Your task to perform on an android device: uninstall "Roku - Official Remote Control" Image 0: 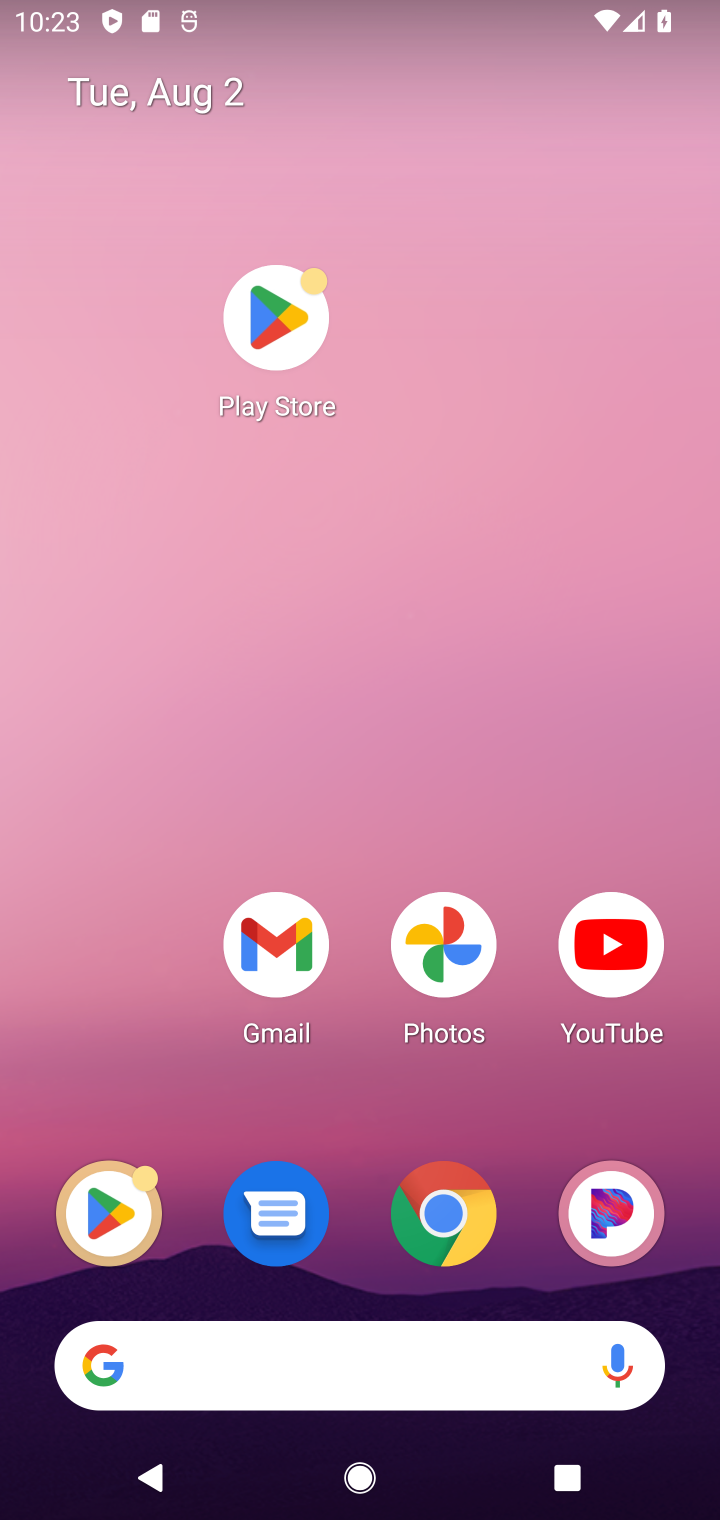
Step 0: click (292, 291)
Your task to perform on an android device: uninstall "Roku - Official Remote Control" Image 1: 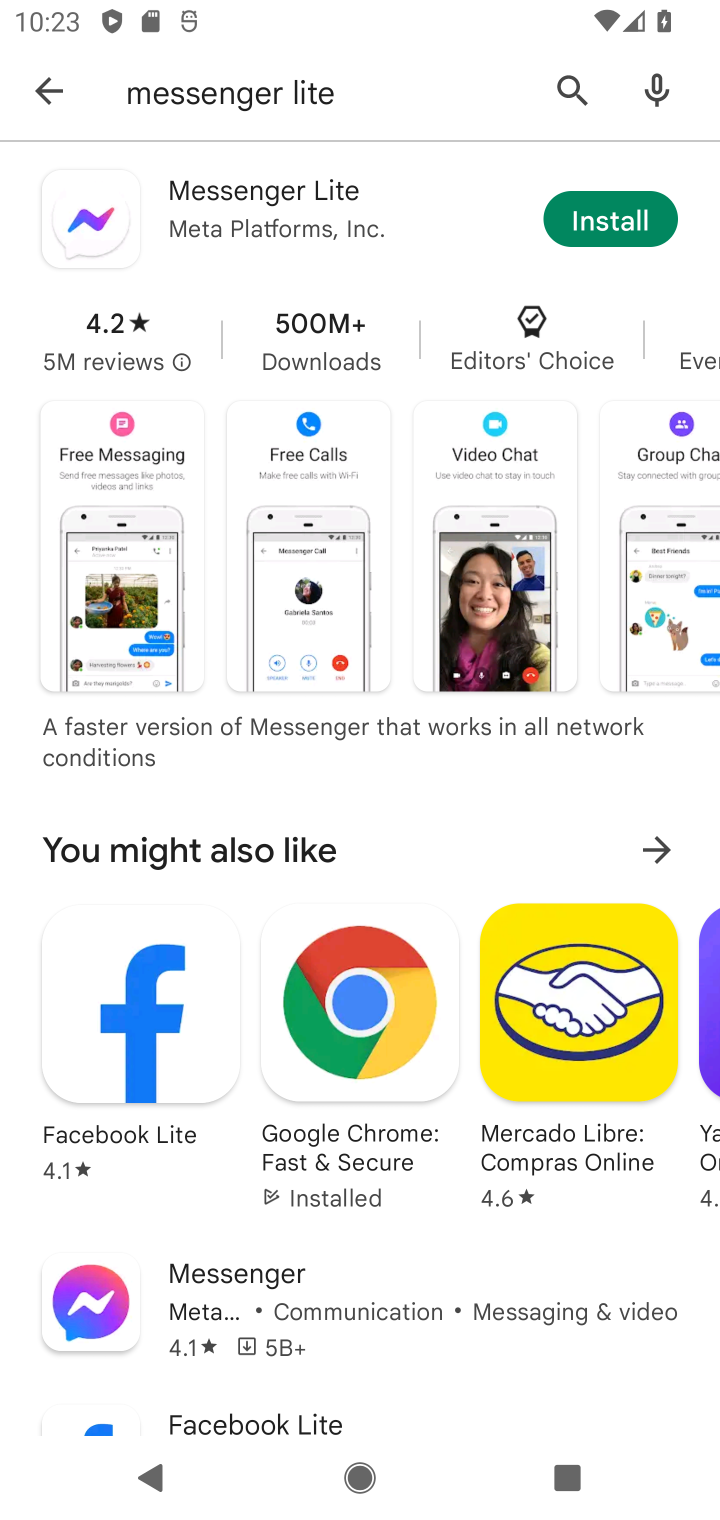
Step 1: click (480, 79)
Your task to perform on an android device: uninstall "Roku - Official Remote Control" Image 2: 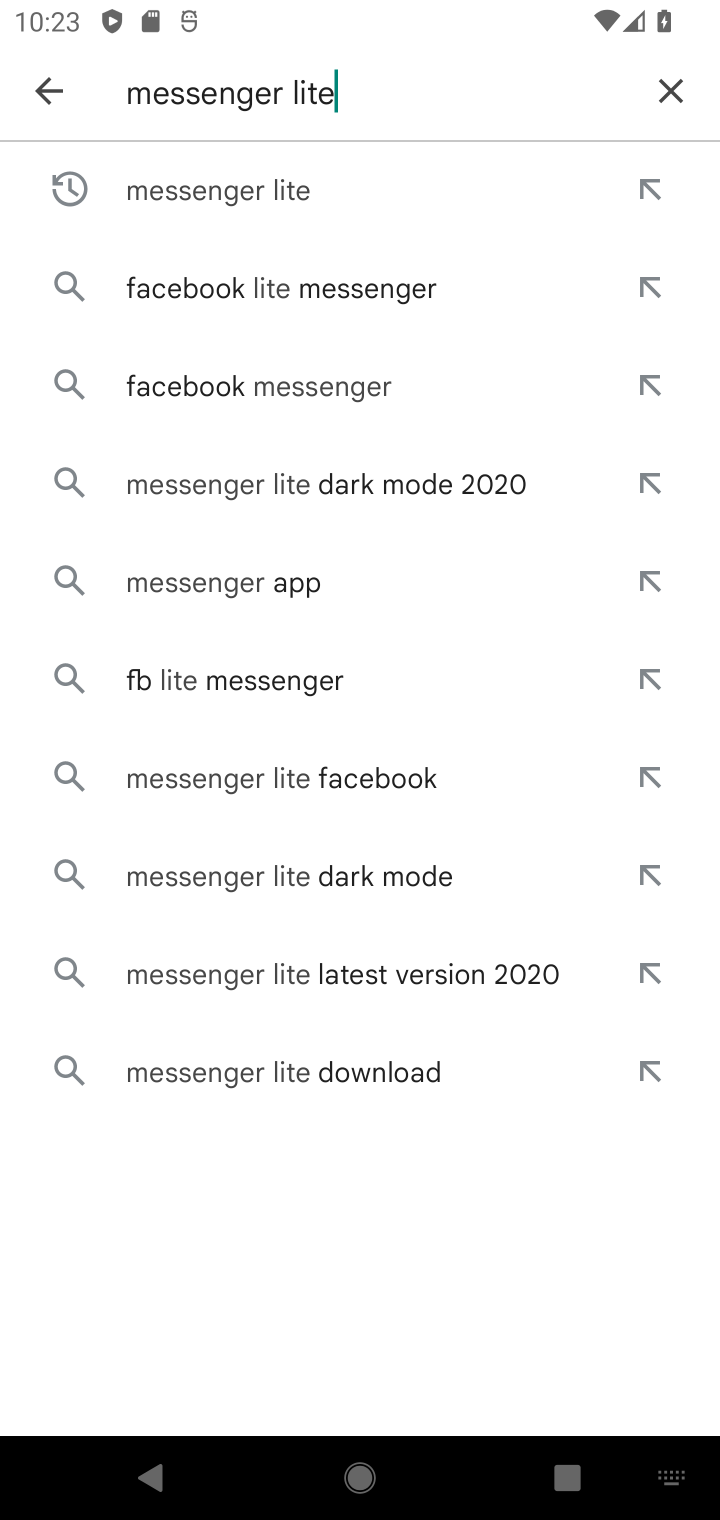
Step 2: click (663, 78)
Your task to perform on an android device: uninstall "Roku - Official Remote Control" Image 3: 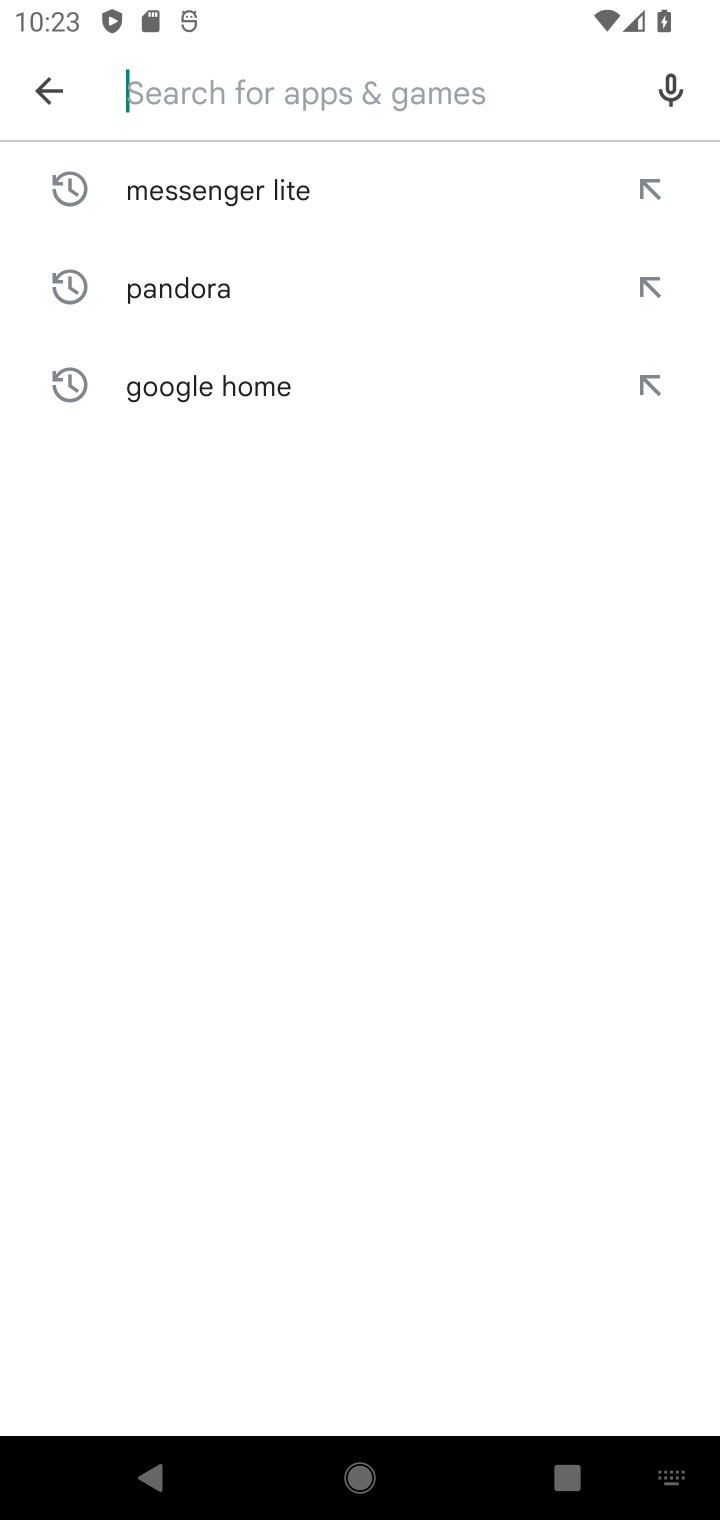
Step 3: type "roku"
Your task to perform on an android device: uninstall "Roku - Official Remote Control" Image 4: 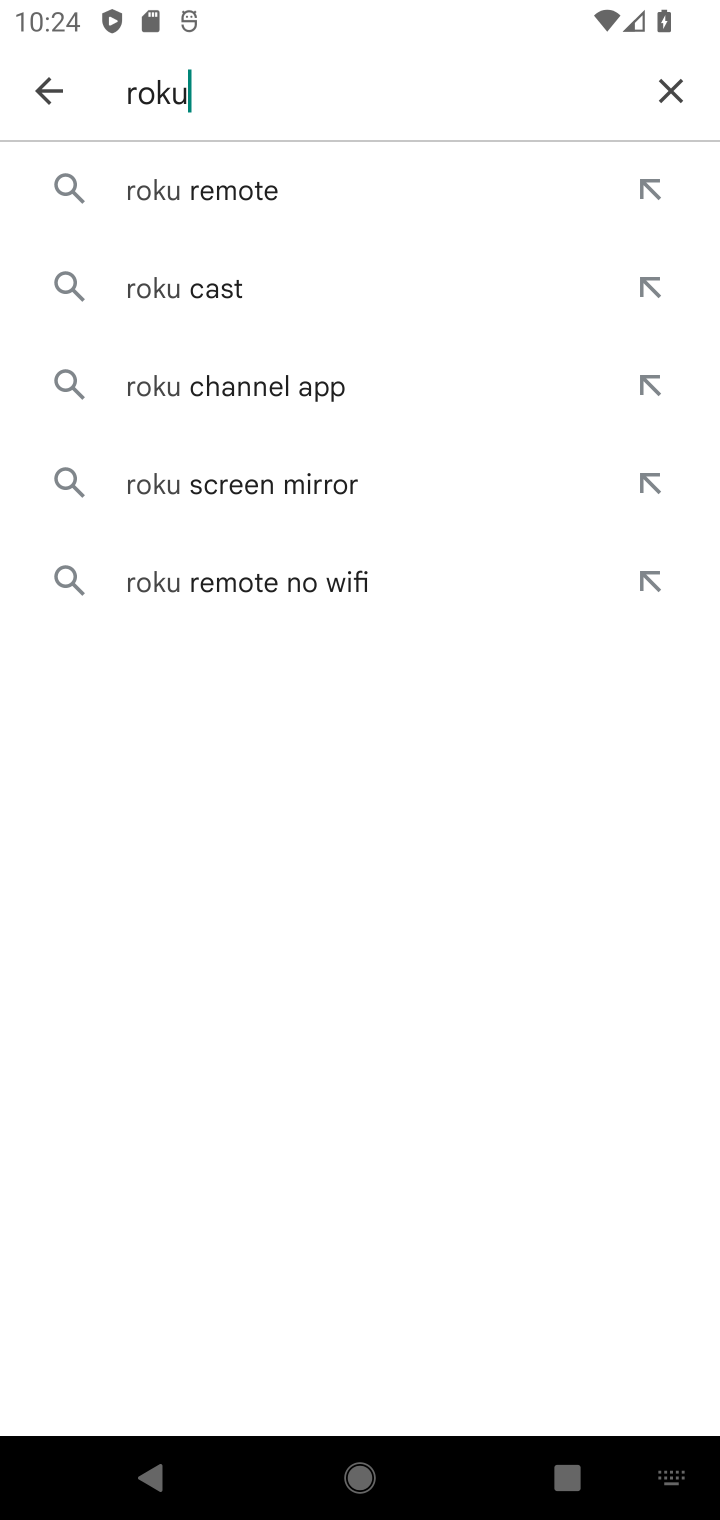
Step 4: click (151, 202)
Your task to perform on an android device: uninstall "Roku - Official Remote Control" Image 5: 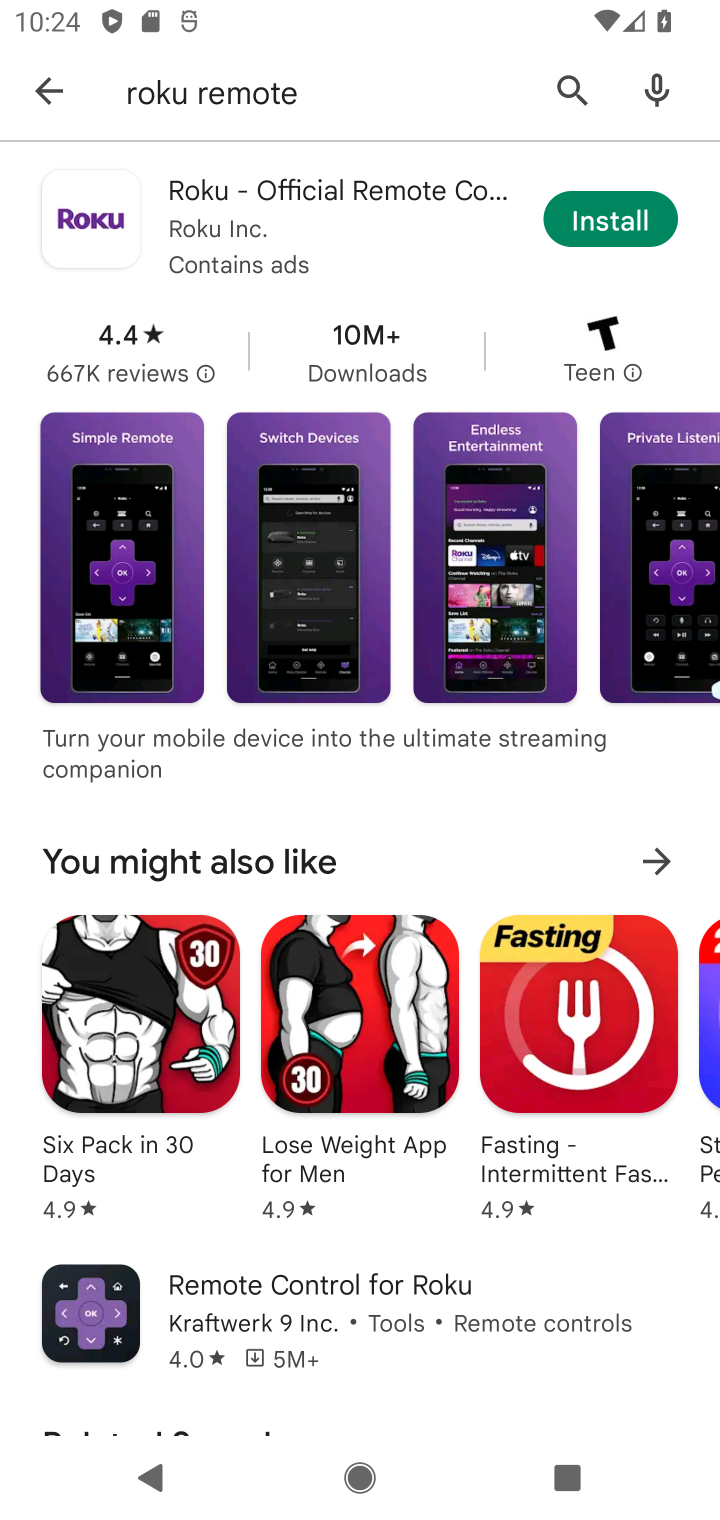
Step 5: task complete